Your task to perform on an android device: Go to sound settings Image 0: 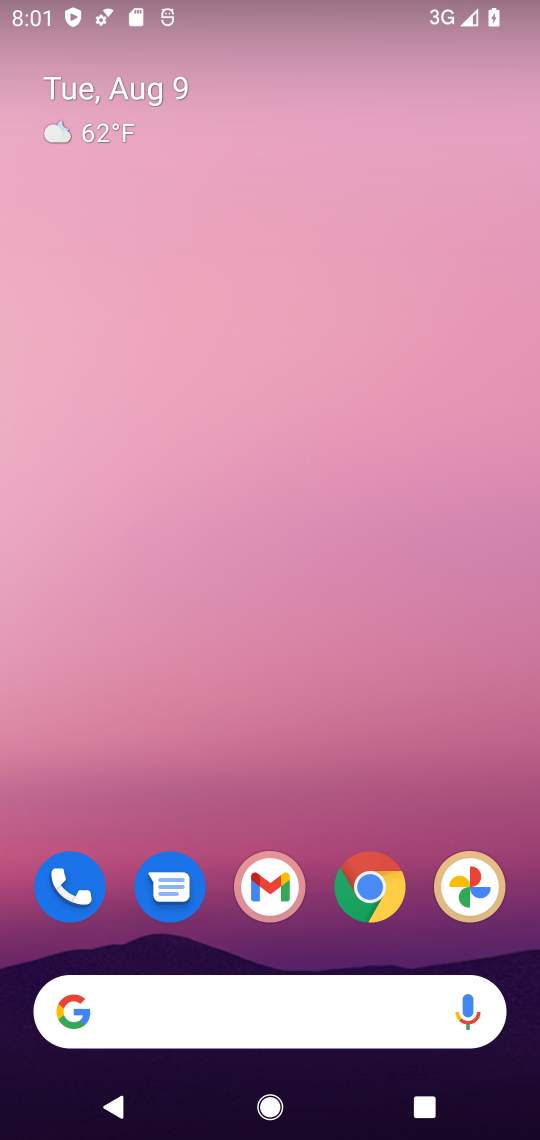
Step 0: drag from (330, 797) to (413, 17)
Your task to perform on an android device: Go to sound settings Image 1: 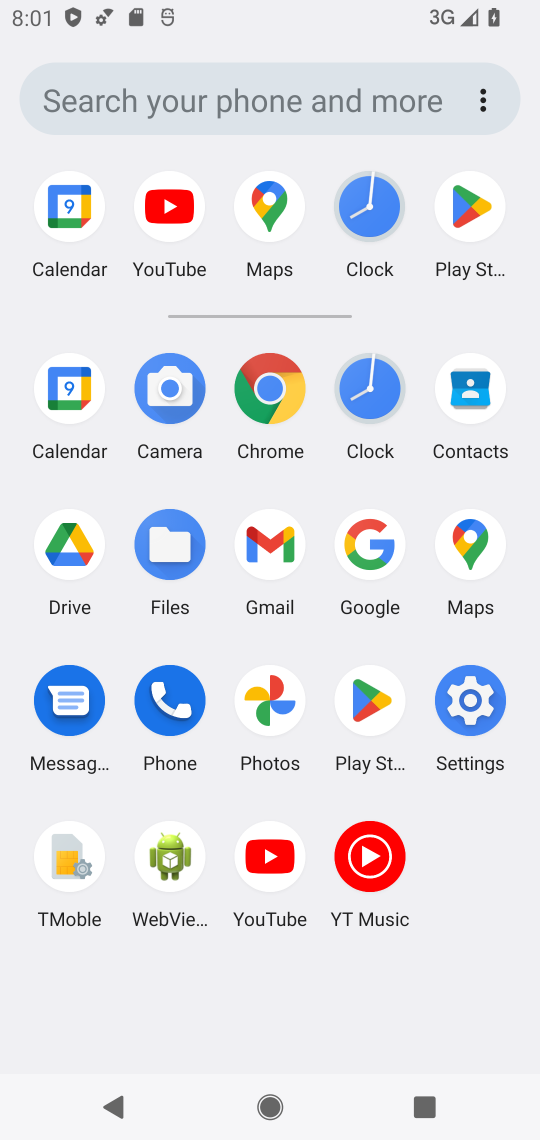
Step 1: click (475, 687)
Your task to perform on an android device: Go to sound settings Image 2: 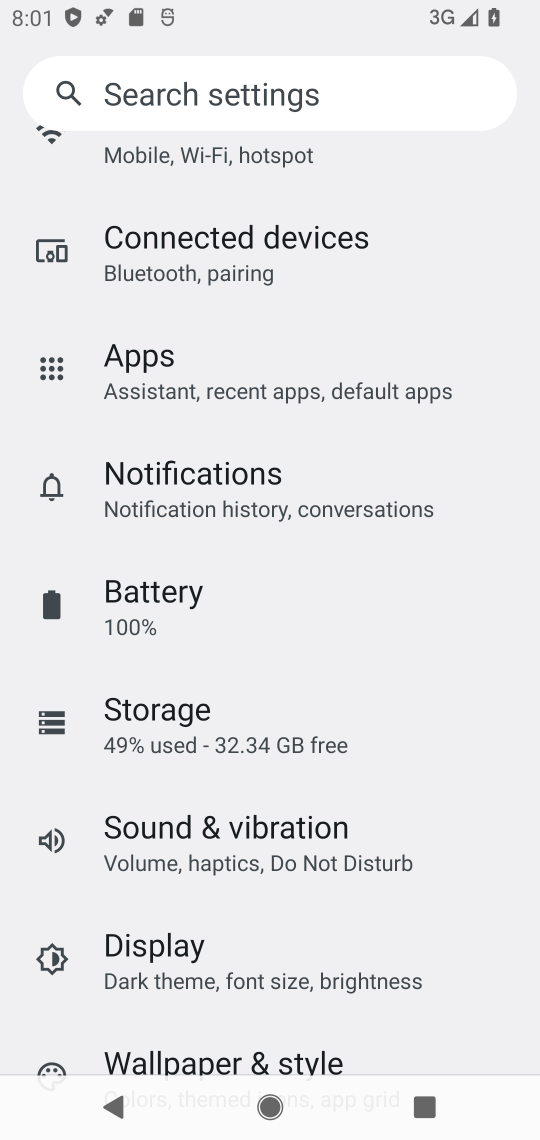
Step 2: drag from (307, 914) to (334, 139)
Your task to perform on an android device: Go to sound settings Image 3: 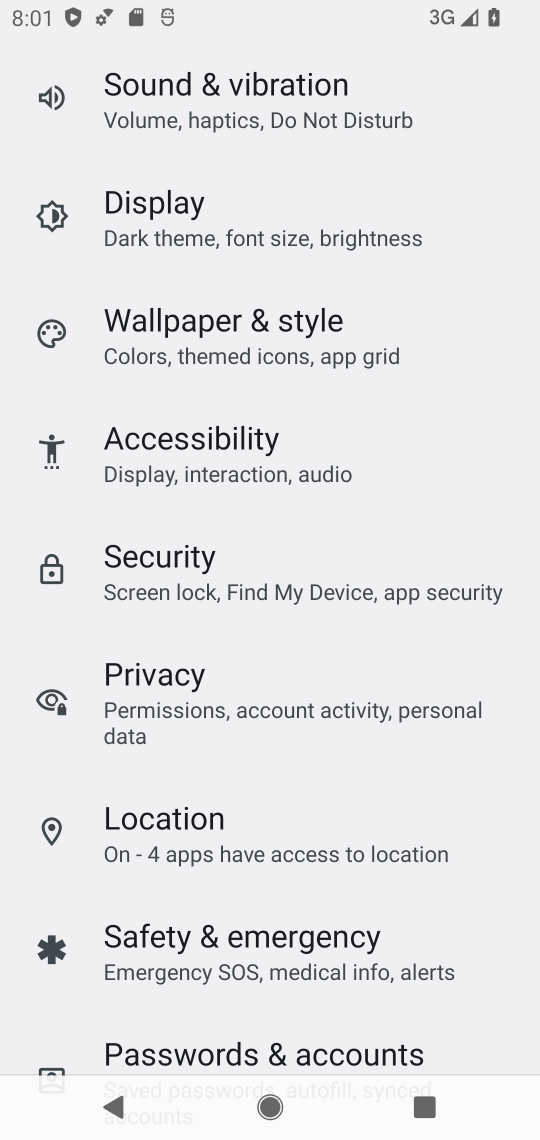
Step 3: drag from (281, 754) to (337, 949)
Your task to perform on an android device: Go to sound settings Image 4: 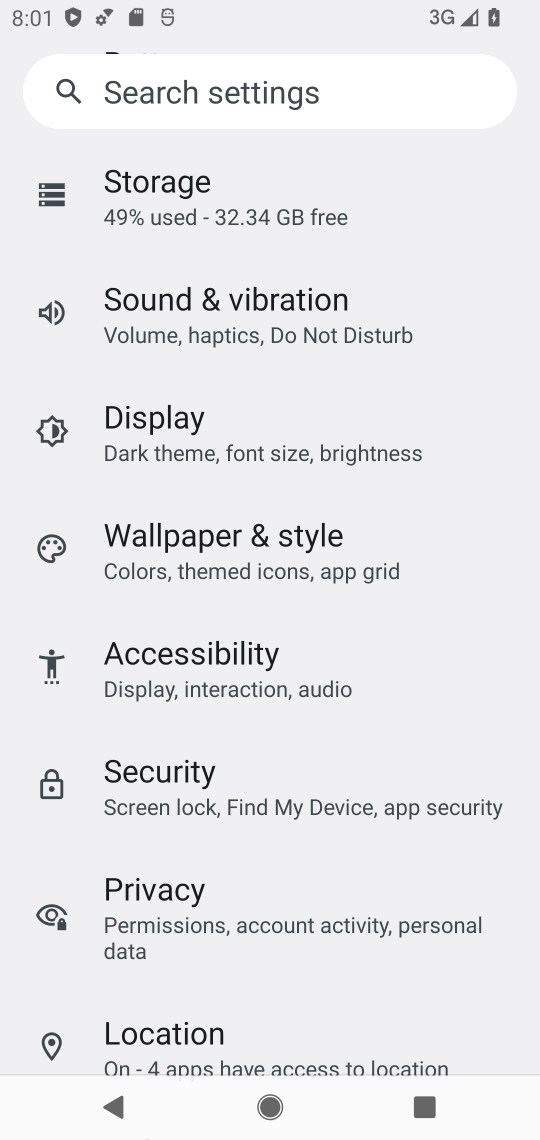
Step 4: click (270, 298)
Your task to perform on an android device: Go to sound settings Image 5: 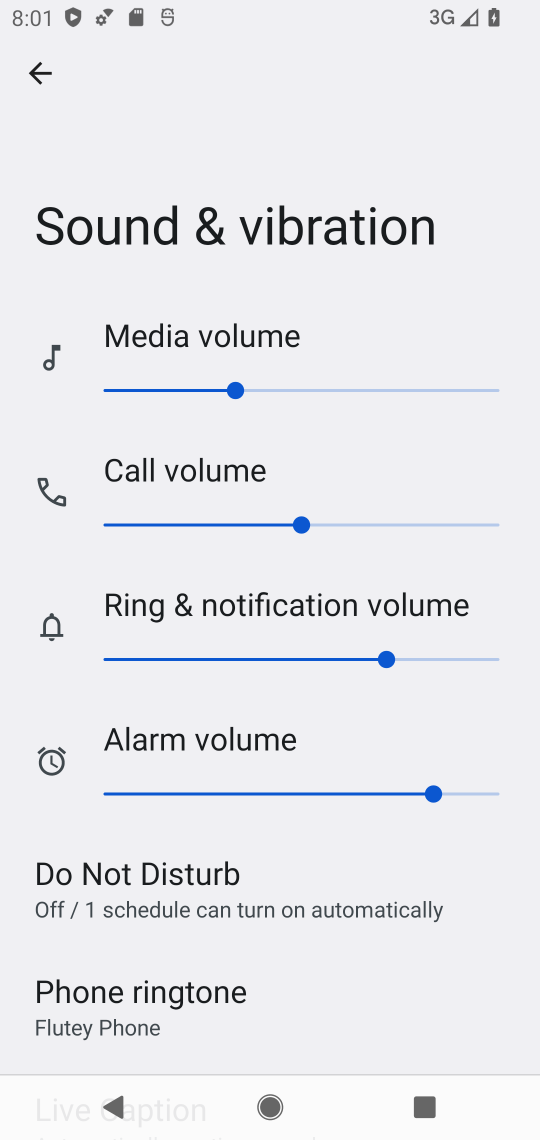
Step 5: task complete